Your task to perform on an android device: Go to network settings Image 0: 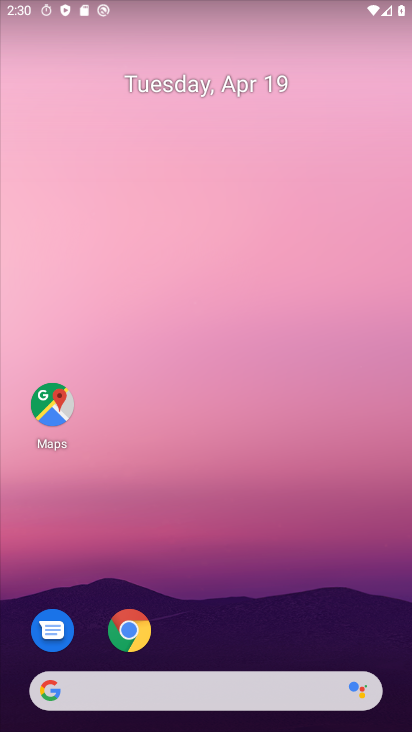
Step 0: drag from (276, 521) to (292, 91)
Your task to perform on an android device: Go to network settings Image 1: 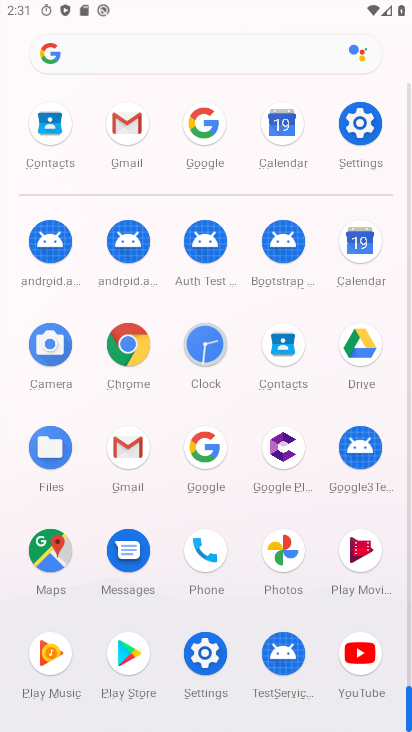
Step 1: click (361, 122)
Your task to perform on an android device: Go to network settings Image 2: 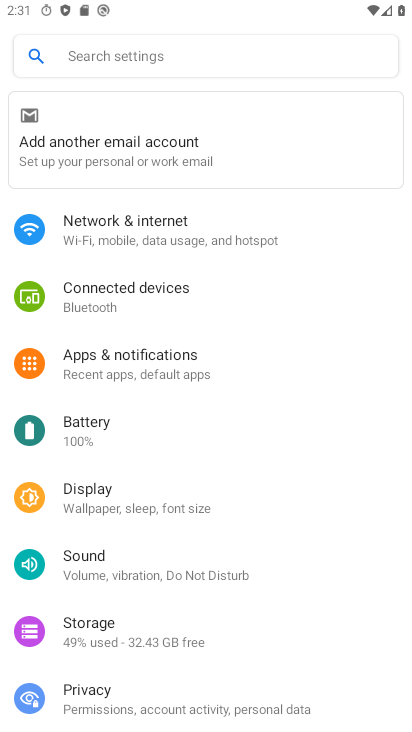
Step 2: click (201, 237)
Your task to perform on an android device: Go to network settings Image 3: 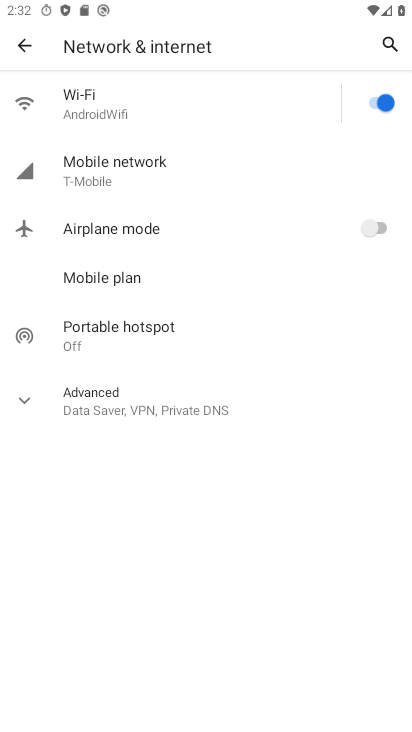
Step 3: task complete